Your task to perform on an android device: Go to CNN.com Image 0: 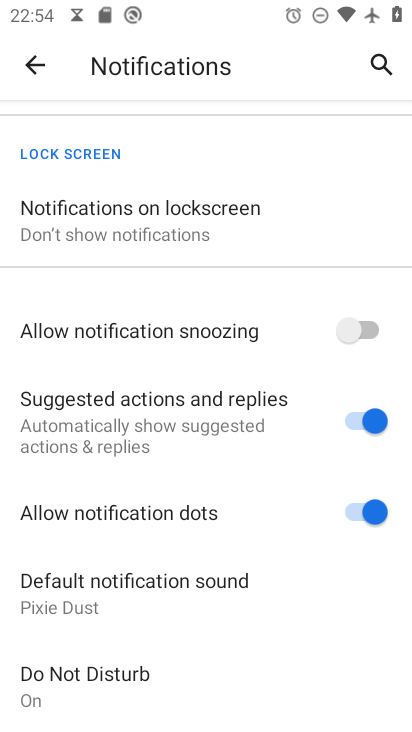
Step 0: press home button
Your task to perform on an android device: Go to CNN.com Image 1: 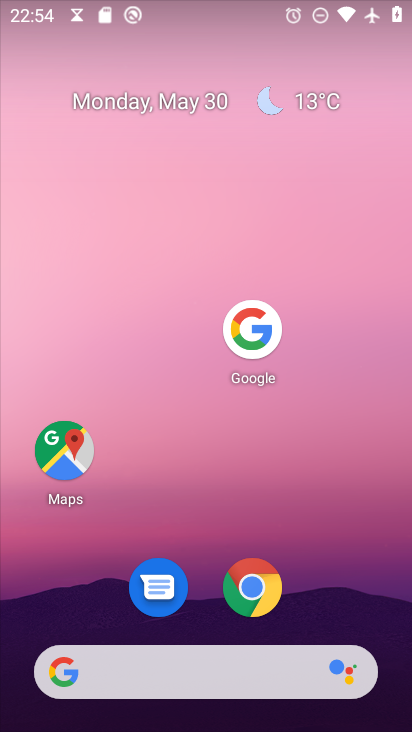
Step 1: click (258, 589)
Your task to perform on an android device: Go to CNN.com Image 2: 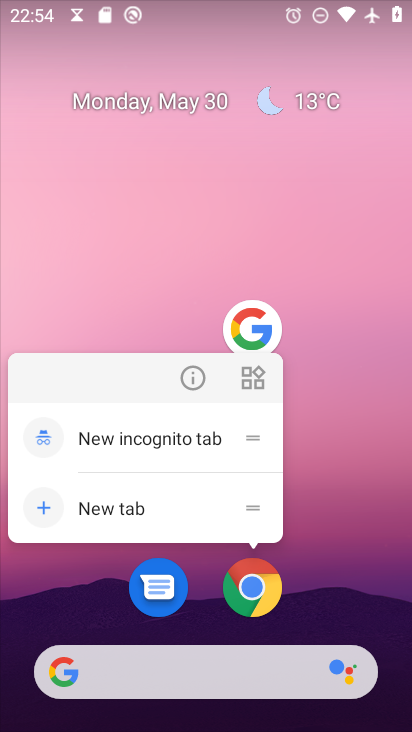
Step 2: click (249, 598)
Your task to perform on an android device: Go to CNN.com Image 3: 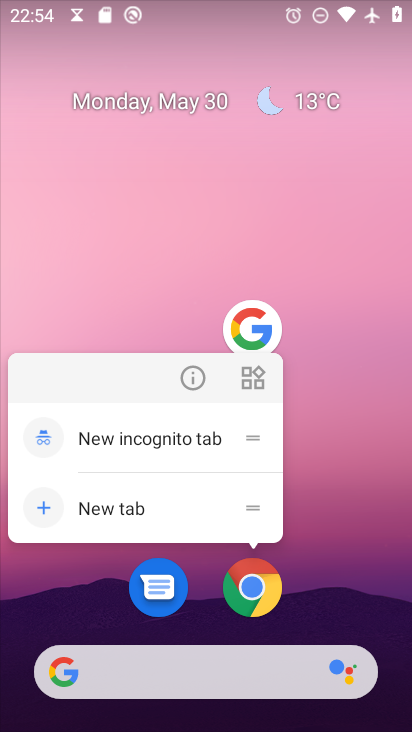
Step 3: click (257, 590)
Your task to perform on an android device: Go to CNN.com Image 4: 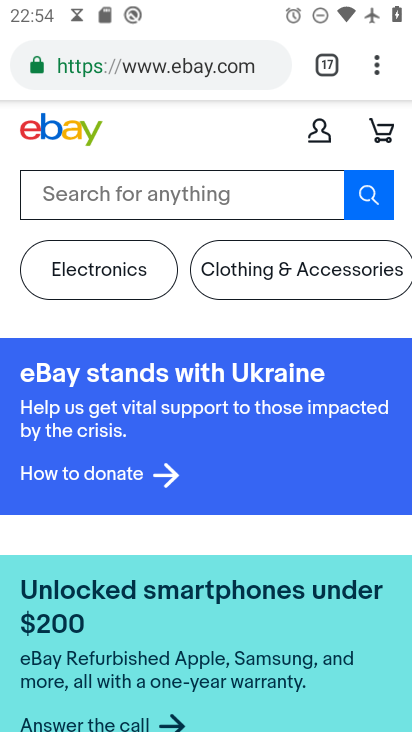
Step 4: drag from (378, 69) to (268, 142)
Your task to perform on an android device: Go to CNN.com Image 5: 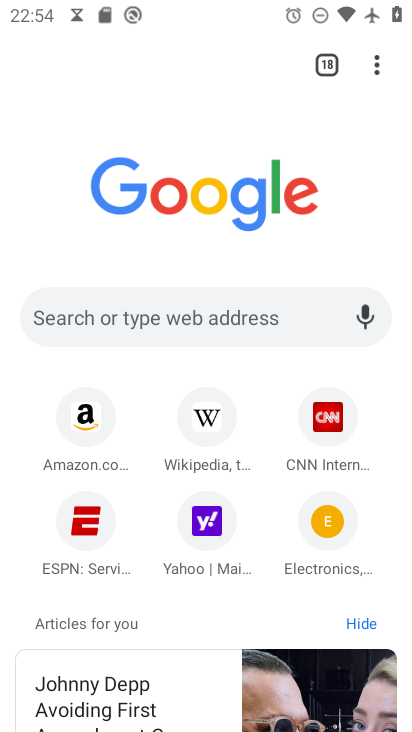
Step 5: click (126, 303)
Your task to perform on an android device: Go to CNN.com Image 6: 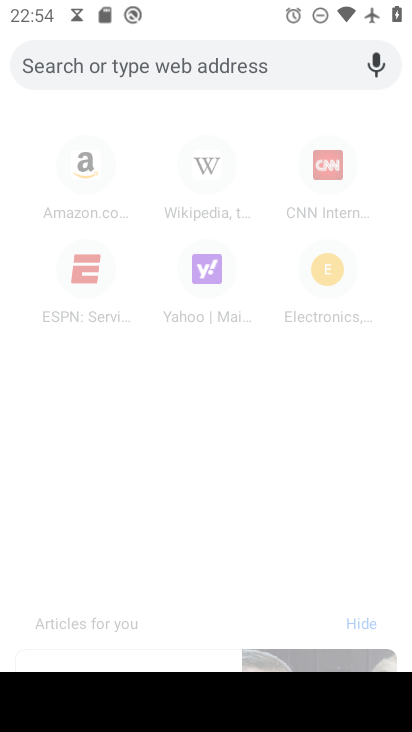
Step 6: type "cnn.com"
Your task to perform on an android device: Go to CNN.com Image 7: 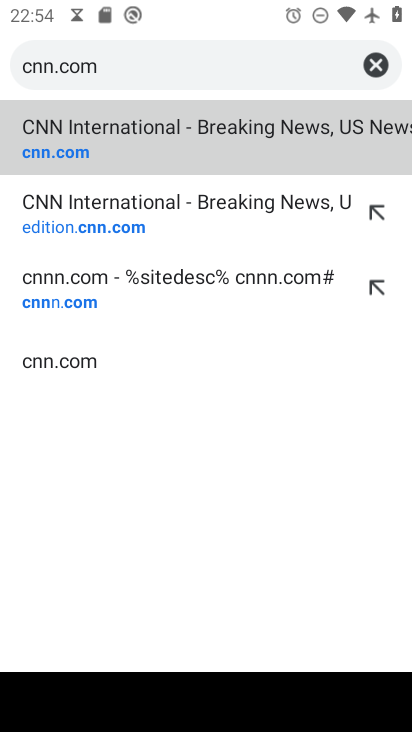
Step 7: click (245, 141)
Your task to perform on an android device: Go to CNN.com Image 8: 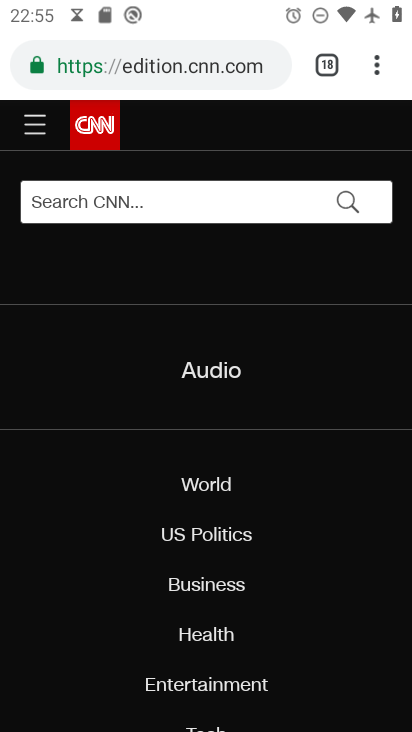
Step 8: task complete